Your task to perform on an android device: Go to calendar. Show me events next week Image 0: 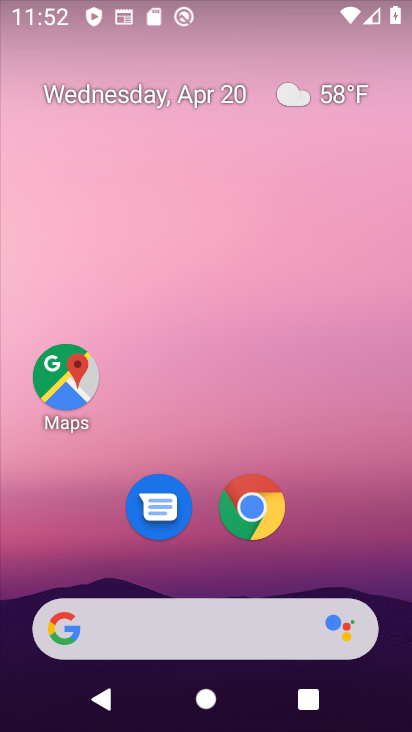
Step 0: drag from (367, 481) to (358, 108)
Your task to perform on an android device: Go to calendar. Show me events next week Image 1: 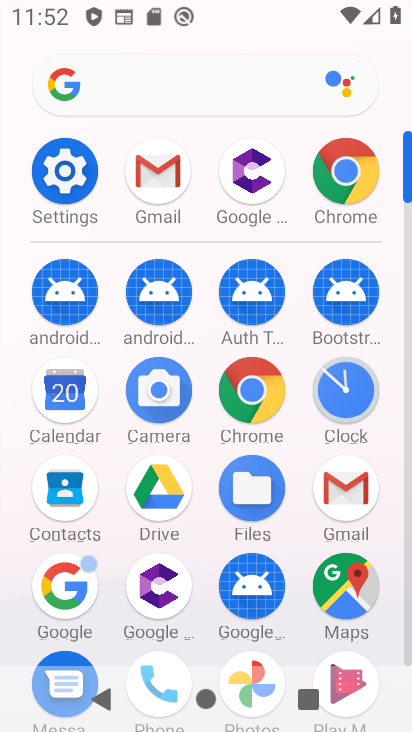
Step 1: click (83, 383)
Your task to perform on an android device: Go to calendar. Show me events next week Image 2: 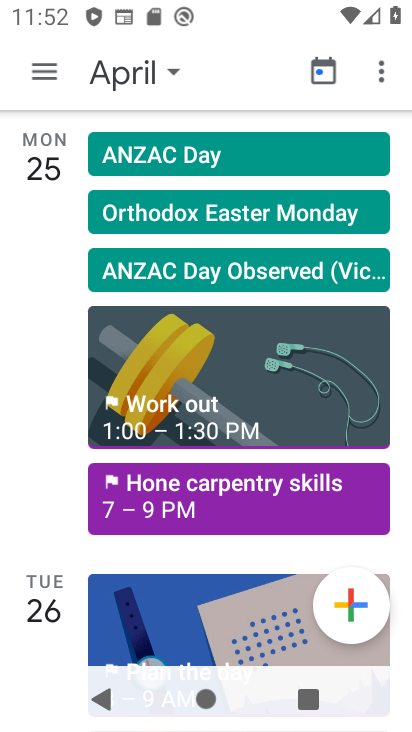
Step 2: task complete